Your task to perform on an android device: Show me productivity apps on the Play Store Image 0: 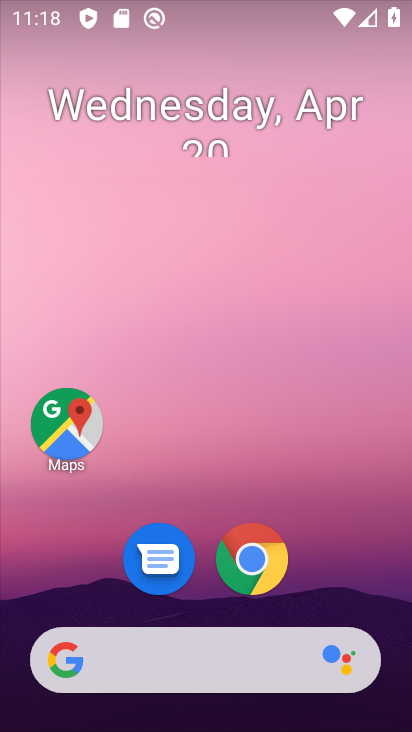
Step 0: drag from (214, 497) to (187, 16)
Your task to perform on an android device: Show me productivity apps on the Play Store Image 1: 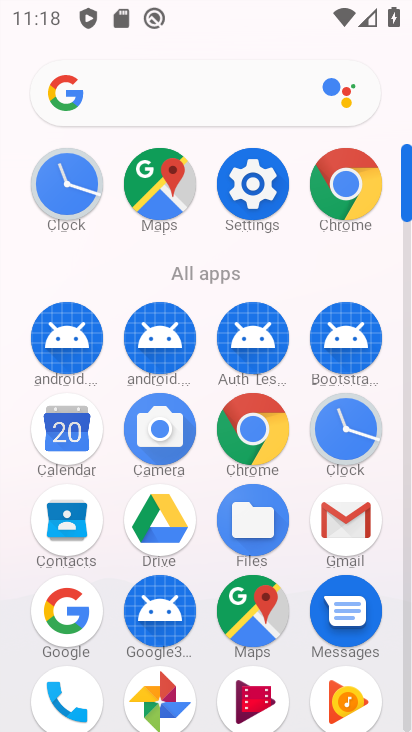
Step 1: drag from (203, 671) to (205, 246)
Your task to perform on an android device: Show me productivity apps on the Play Store Image 2: 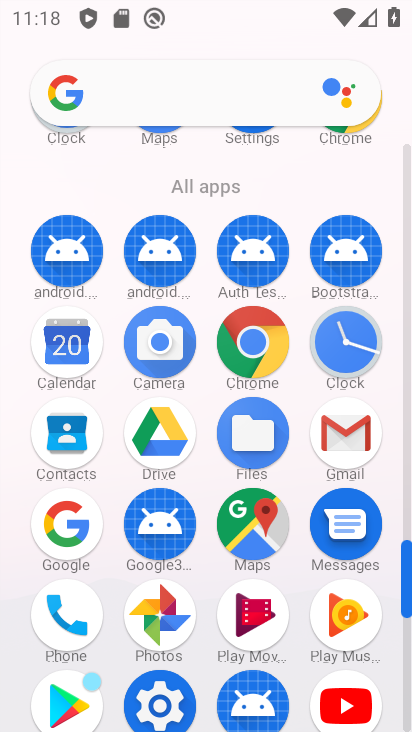
Step 2: click (74, 705)
Your task to perform on an android device: Show me productivity apps on the Play Store Image 3: 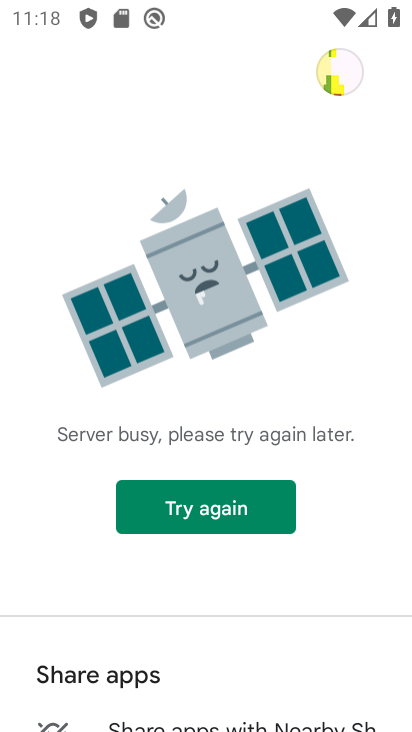
Step 3: click (240, 508)
Your task to perform on an android device: Show me productivity apps on the Play Store Image 4: 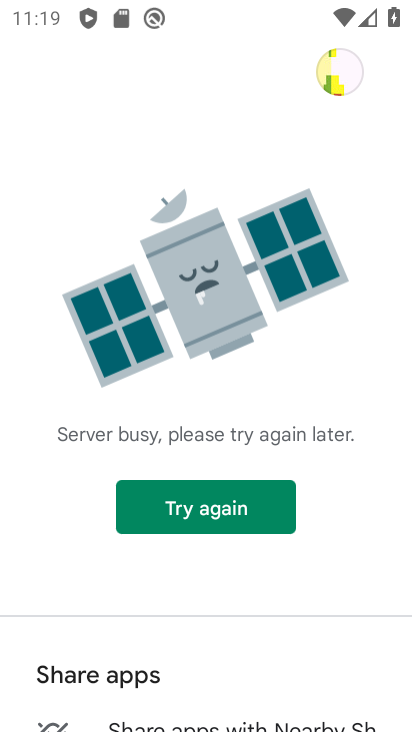
Step 4: task complete